Your task to perform on an android device: Show me popular games on the Play Store Image 0: 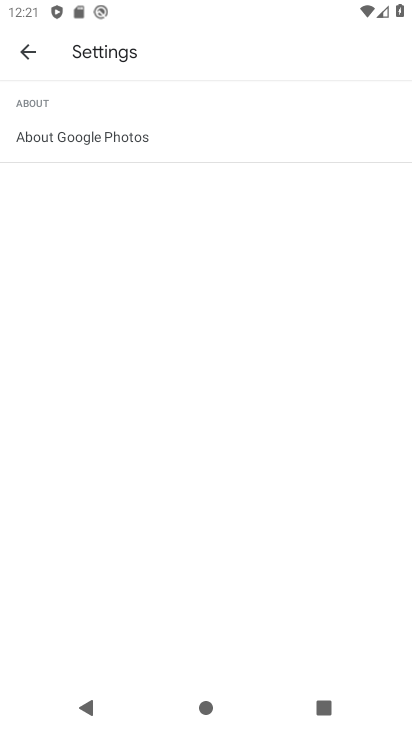
Step 0: press home button
Your task to perform on an android device: Show me popular games on the Play Store Image 1: 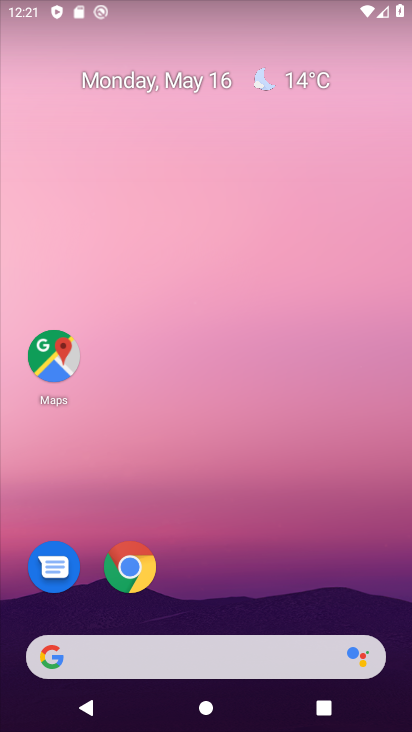
Step 1: drag from (236, 529) to (173, 264)
Your task to perform on an android device: Show me popular games on the Play Store Image 2: 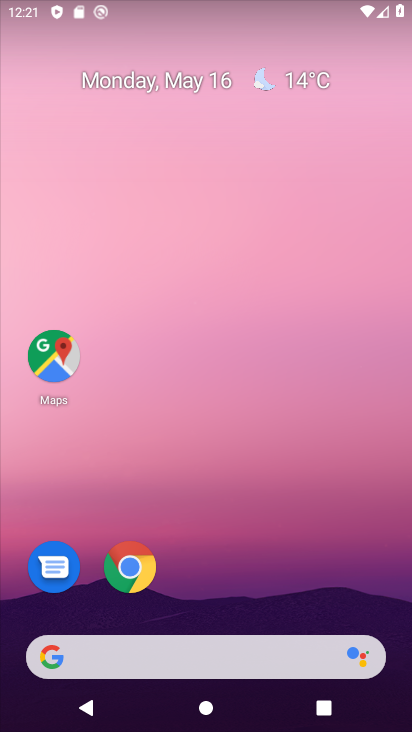
Step 2: drag from (237, 542) to (223, 1)
Your task to perform on an android device: Show me popular games on the Play Store Image 3: 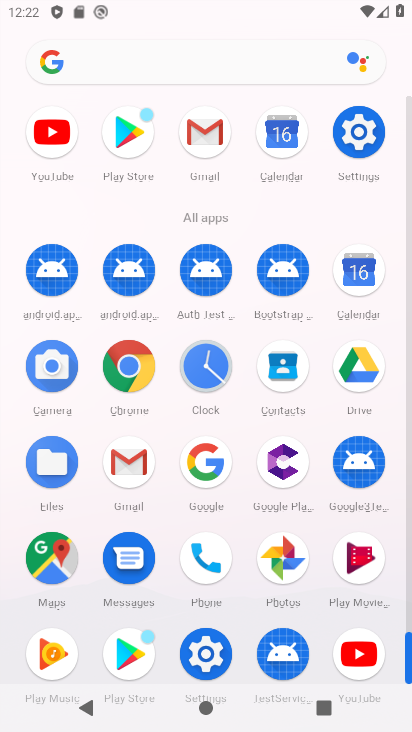
Step 3: click (131, 654)
Your task to perform on an android device: Show me popular games on the Play Store Image 4: 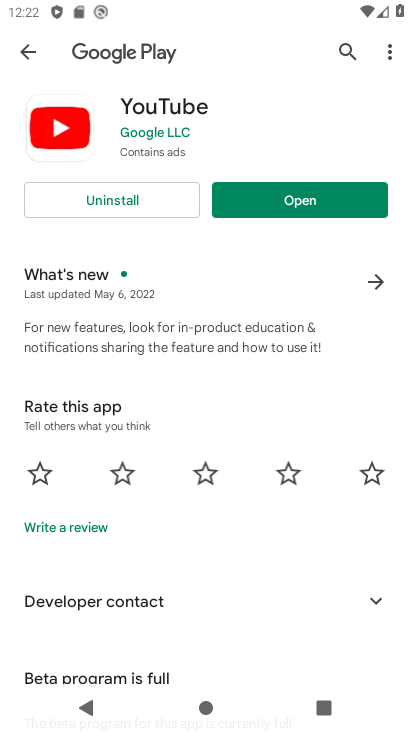
Step 4: click (28, 51)
Your task to perform on an android device: Show me popular games on the Play Store Image 5: 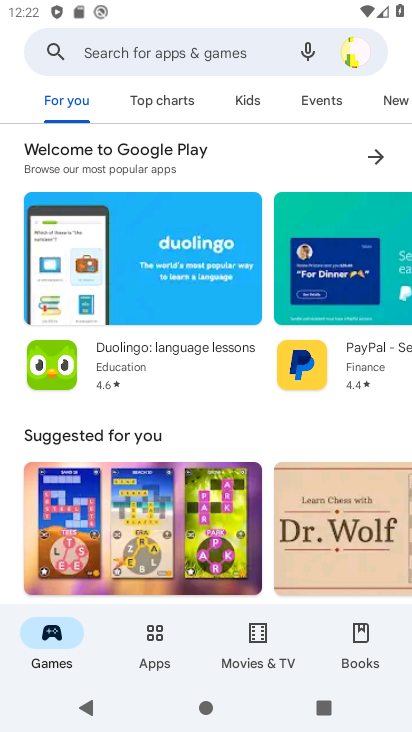
Step 5: task complete